Your task to perform on an android device: turn off smart reply in the gmail app Image 0: 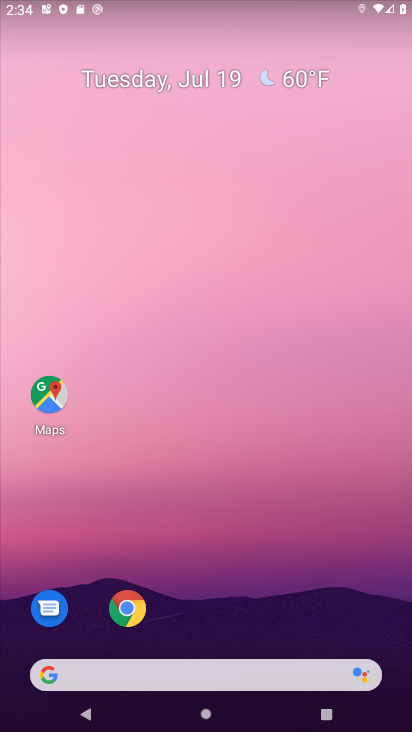
Step 0: drag from (282, 611) to (329, 25)
Your task to perform on an android device: turn off smart reply in the gmail app Image 1: 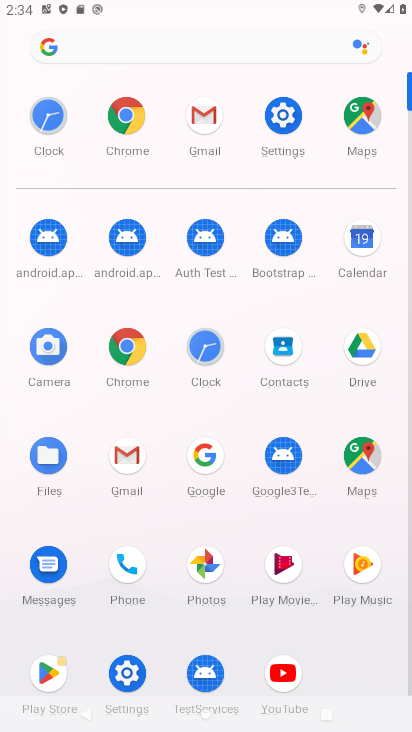
Step 1: click (202, 121)
Your task to perform on an android device: turn off smart reply in the gmail app Image 2: 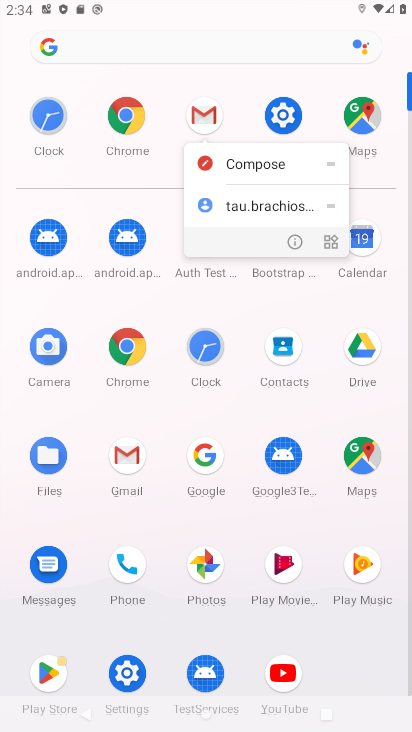
Step 2: click (203, 116)
Your task to perform on an android device: turn off smart reply in the gmail app Image 3: 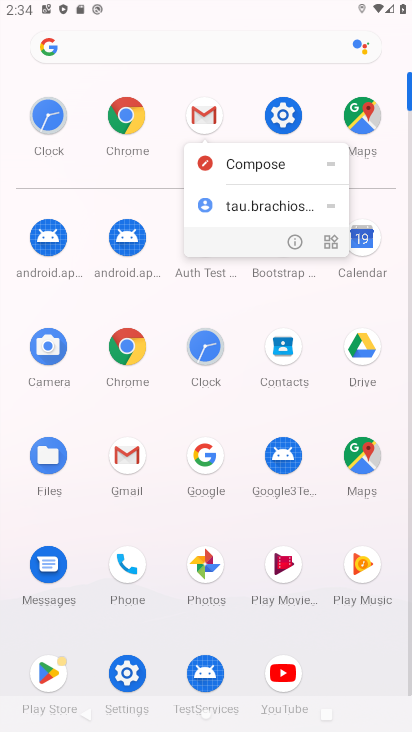
Step 3: click (203, 115)
Your task to perform on an android device: turn off smart reply in the gmail app Image 4: 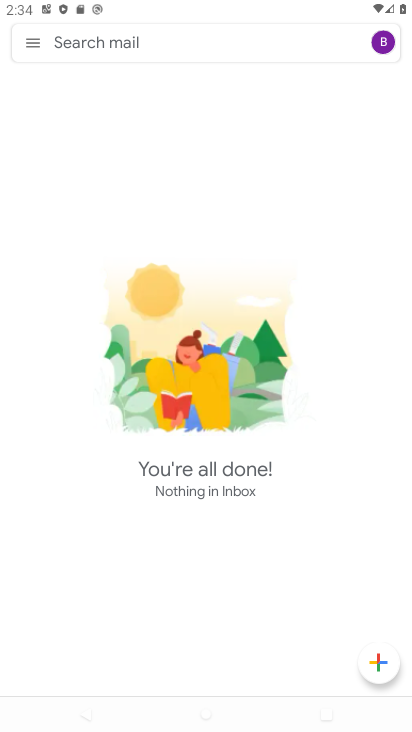
Step 4: click (34, 45)
Your task to perform on an android device: turn off smart reply in the gmail app Image 5: 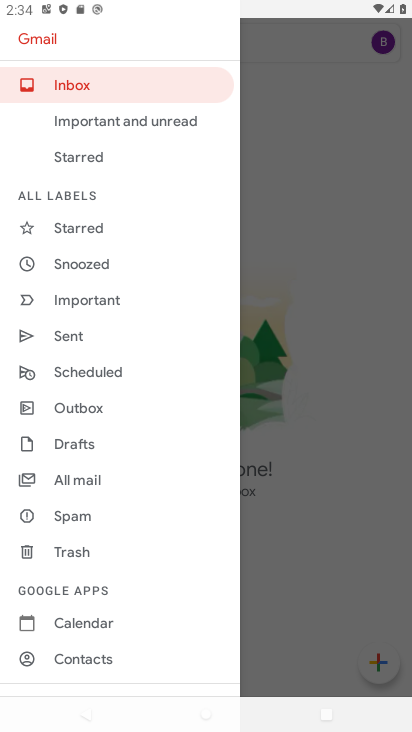
Step 5: drag from (84, 631) to (81, 174)
Your task to perform on an android device: turn off smart reply in the gmail app Image 6: 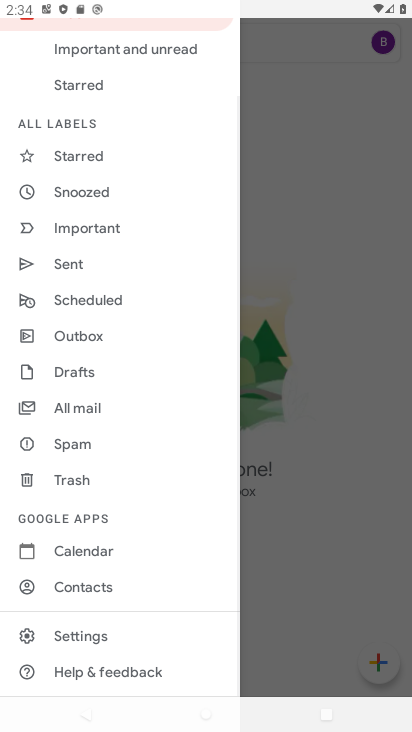
Step 6: click (96, 642)
Your task to perform on an android device: turn off smart reply in the gmail app Image 7: 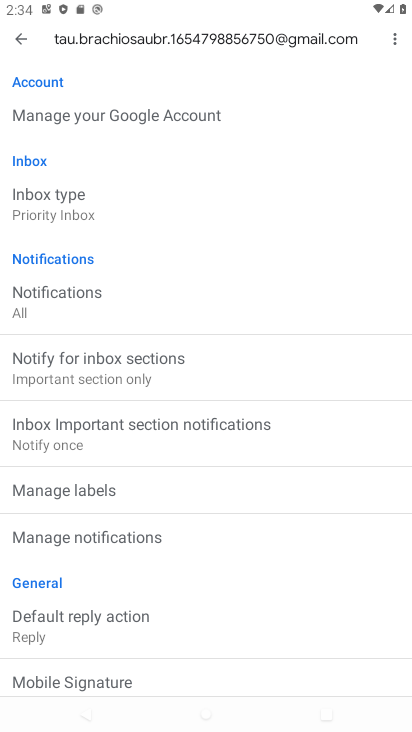
Step 7: drag from (111, 609) to (216, 117)
Your task to perform on an android device: turn off smart reply in the gmail app Image 8: 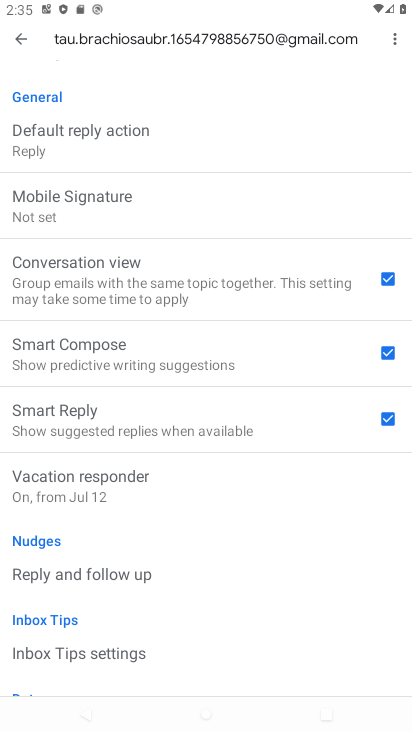
Step 8: click (386, 424)
Your task to perform on an android device: turn off smart reply in the gmail app Image 9: 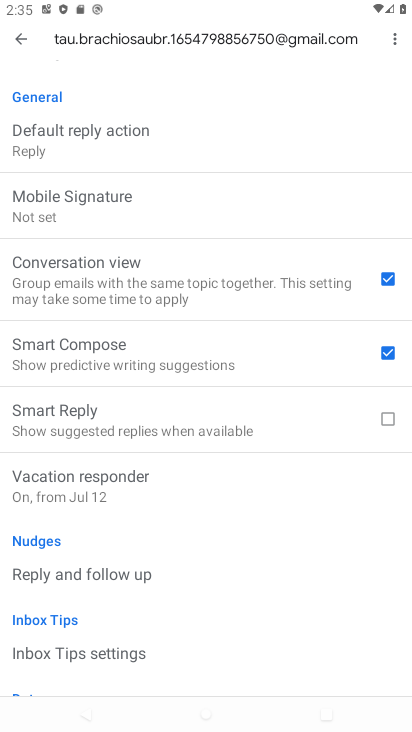
Step 9: task complete